Your task to perform on an android device: turn on improve location accuracy Image 0: 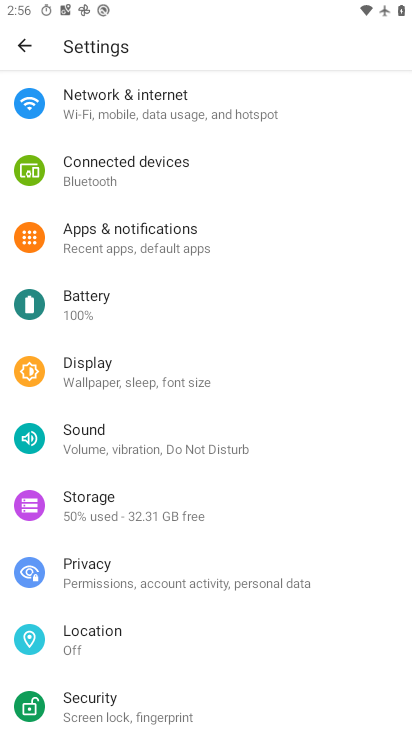
Step 0: click (96, 637)
Your task to perform on an android device: turn on improve location accuracy Image 1: 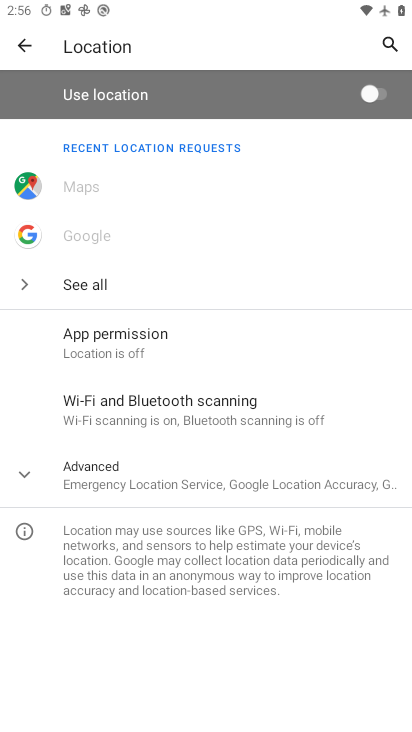
Step 1: click (343, 98)
Your task to perform on an android device: turn on improve location accuracy Image 2: 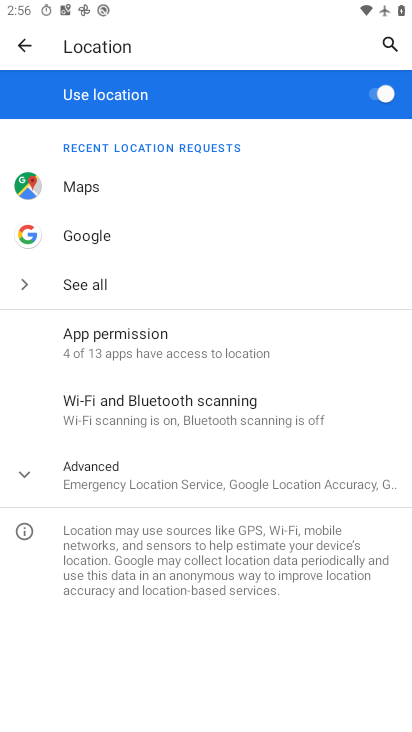
Step 2: task complete